Your task to perform on an android device: What's on my calendar today? Image 0: 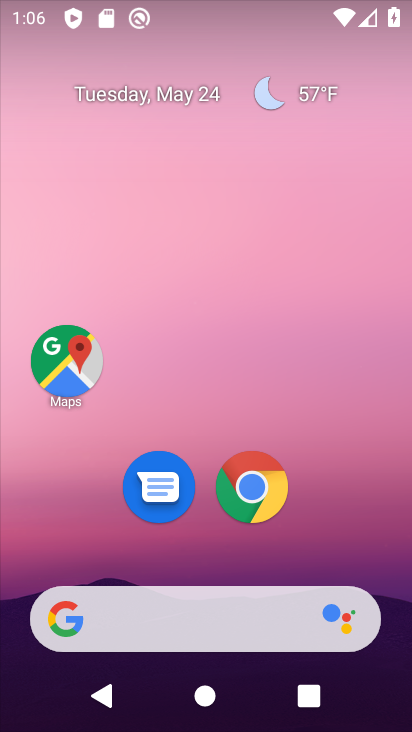
Step 0: drag from (243, 728) to (210, 192)
Your task to perform on an android device: What's on my calendar today? Image 1: 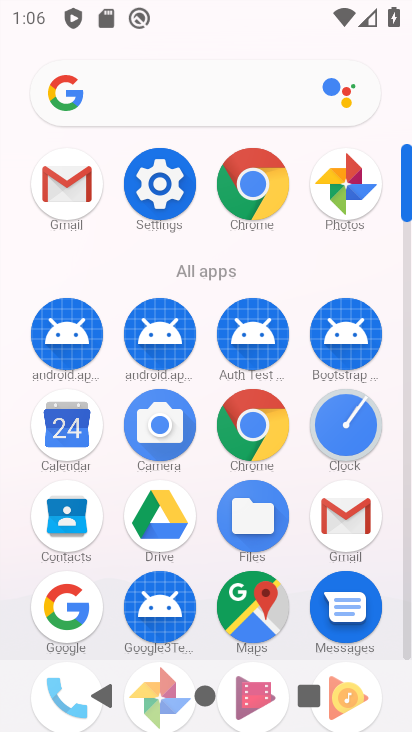
Step 1: click (71, 436)
Your task to perform on an android device: What's on my calendar today? Image 2: 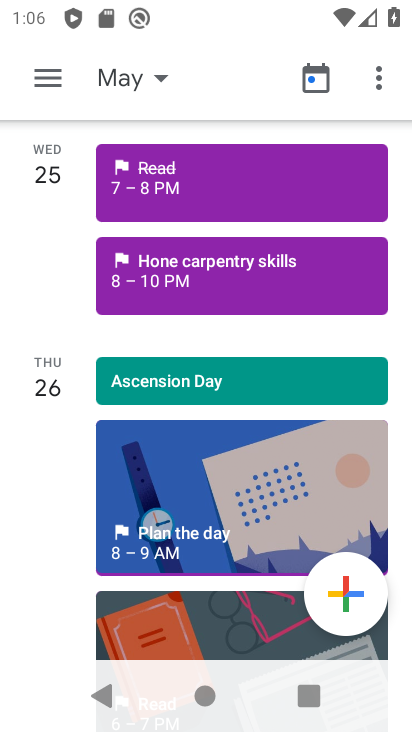
Step 2: click (152, 73)
Your task to perform on an android device: What's on my calendar today? Image 3: 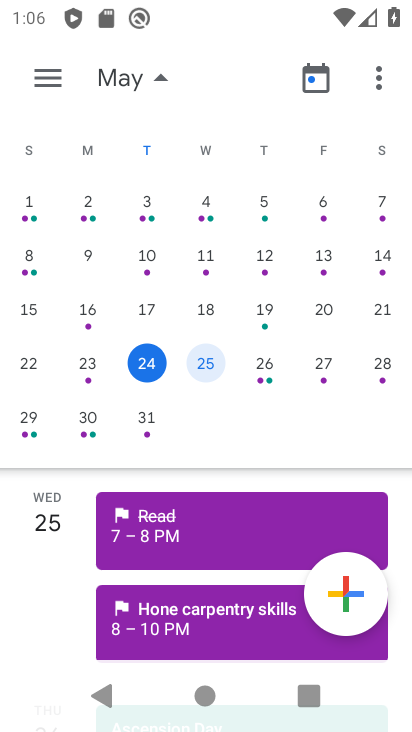
Step 3: click (140, 367)
Your task to perform on an android device: What's on my calendar today? Image 4: 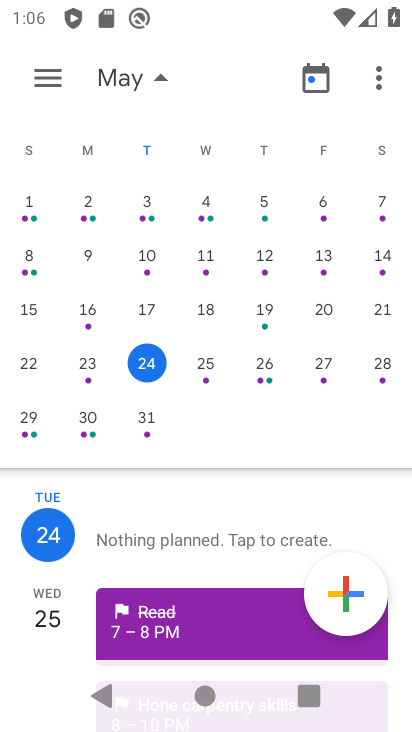
Step 4: click (145, 365)
Your task to perform on an android device: What's on my calendar today? Image 5: 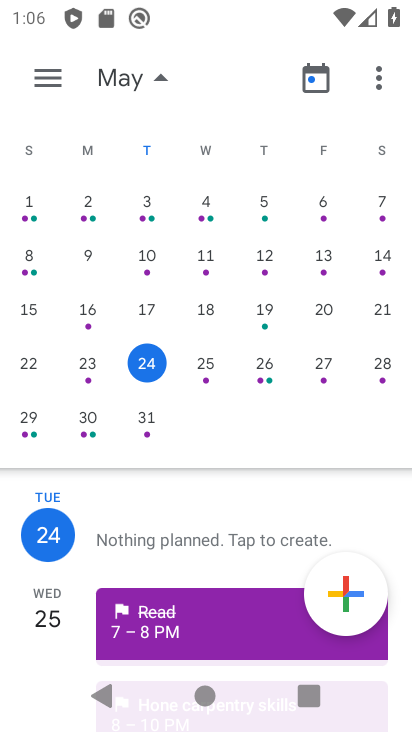
Step 5: click (161, 78)
Your task to perform on an android device: What's on my calendar today? Image 6: 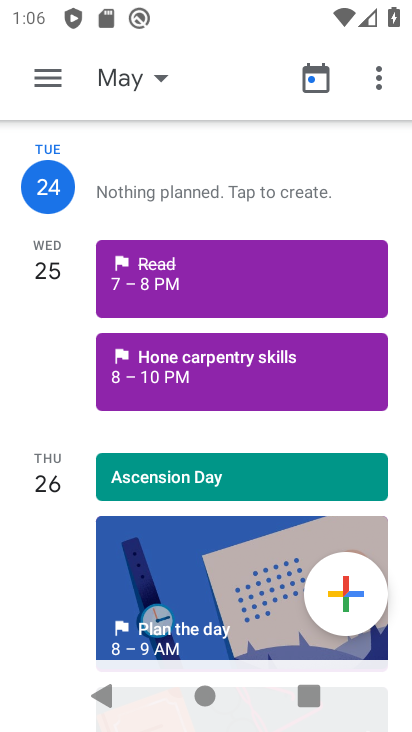
Step 6: task complete